Your task to perform on an android device: Open network settings Image 0: 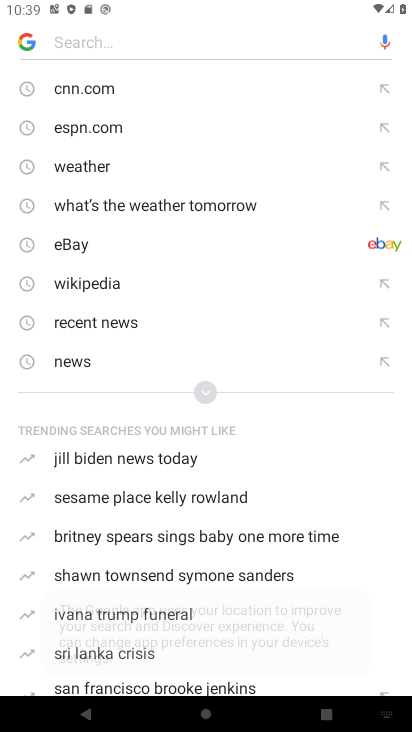
Step 0: press back button
Your task to perform on an android device: Open network settings Image 1: 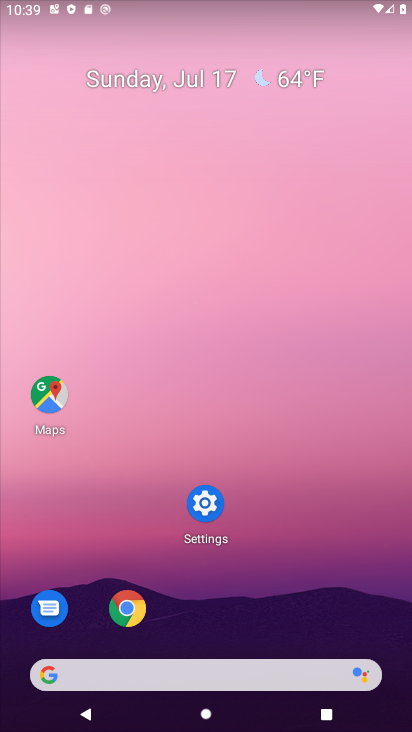
Step 1: click (211, 512)
Your task to perform on an android device: Open network settings Image 2: 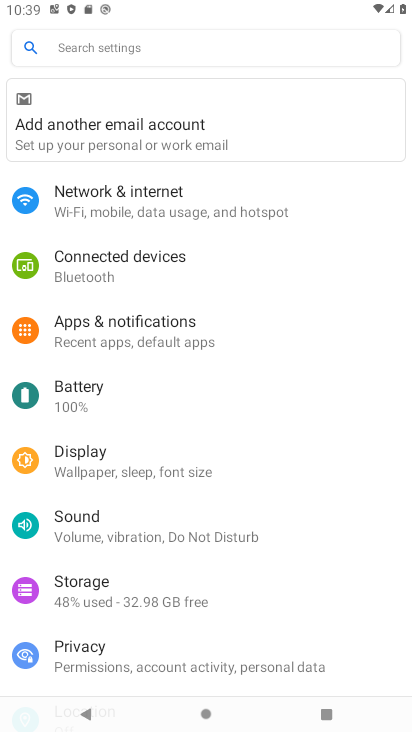
Step 2: click (156, 199)
Your task to perform on an android device: Open network settings Image 3: 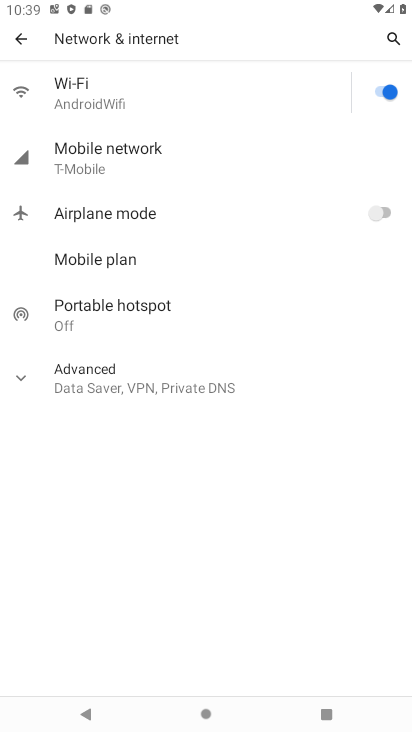
Step 3: click (100, 155)
Your task to perform on an android device: Open network settings Image 4: 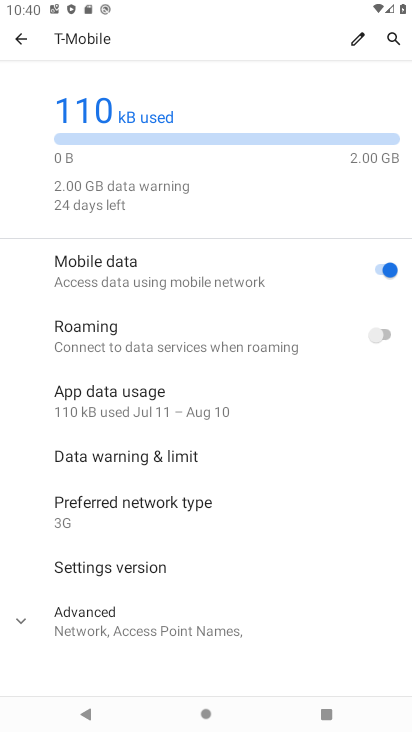
Step 4: click (19, 614)
Your task to perform on an android device: Open network settings Image 5: 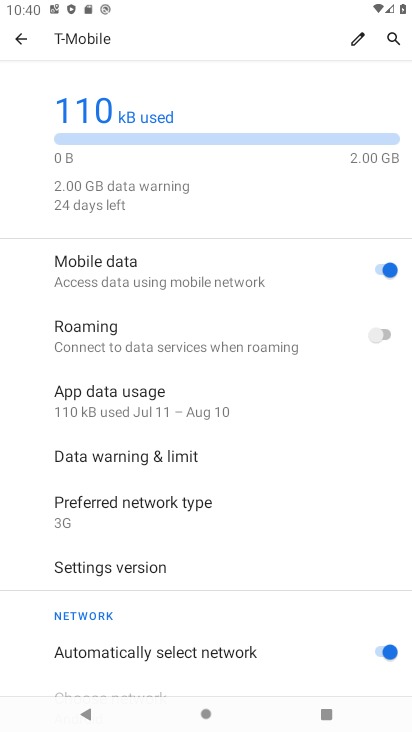
Step 5: task complete